Your task to perform on an android device: open chrome privacy settings Image 0: 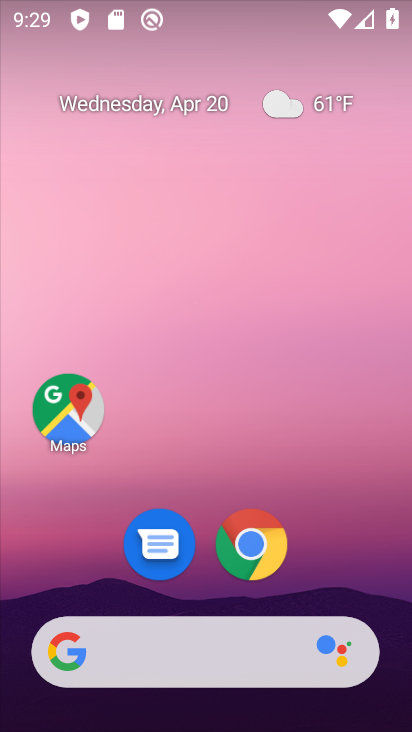
Step 0: click (255, 531)
Your task to perform on an android device: open chrome privacy settings Image 1: 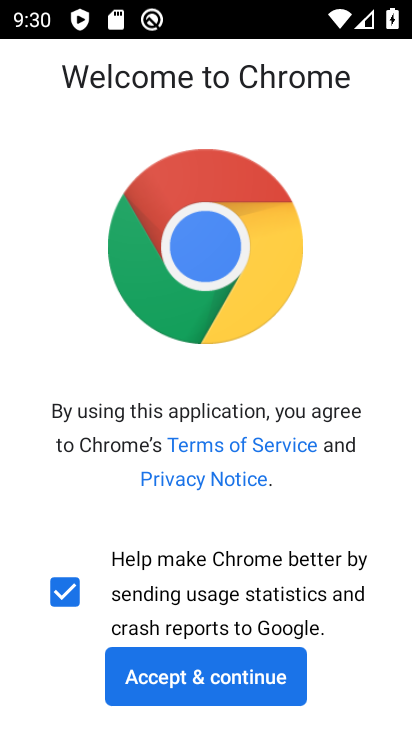
Step 1: click (220, 664)
Your task to perform on an android device: open chrome privacy settings Image 2: 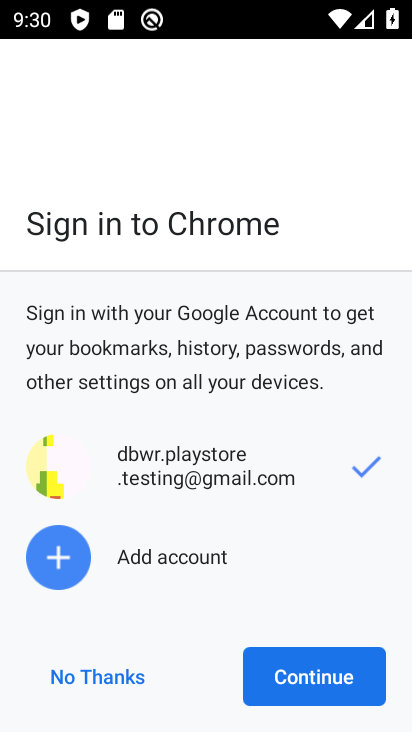
Step 2: click (291, 667)
Your task to perform on an android device: open chrome privacy settings Image 3: 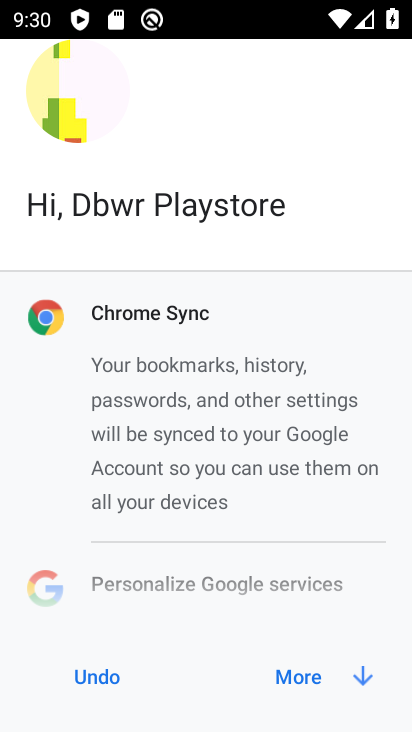
Step 3: click (326, 683)
Your task to perform on an android device: open chrome privacy settings Image 4: 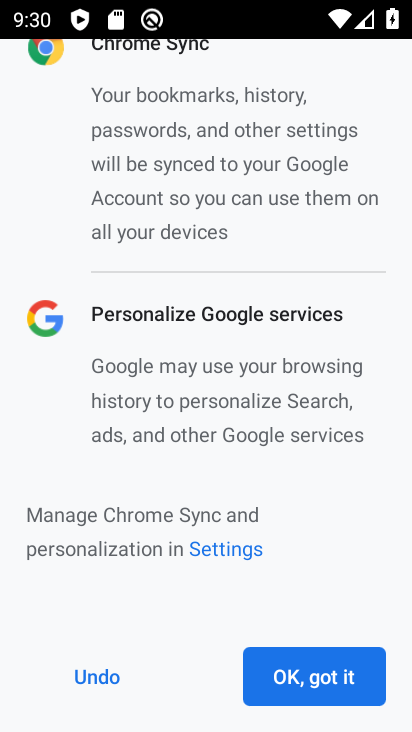
Step 4: click (325, 681)
Your task to perform on an android device: open chrome privacy settings Image 5: 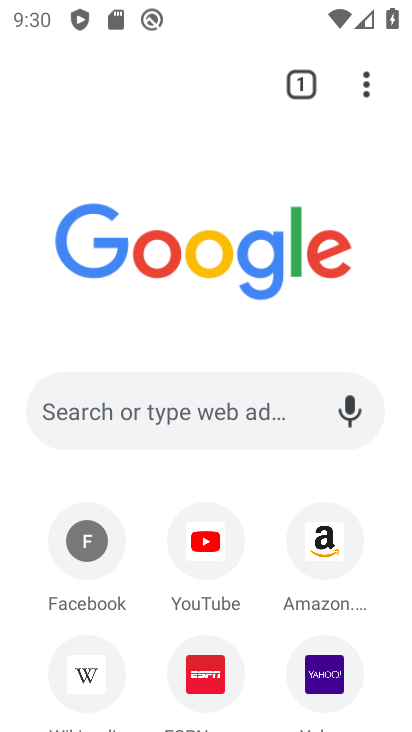
Step 5: click (373, 89)
Your task to perform on an android device: open chrome privacy settings Image 6: 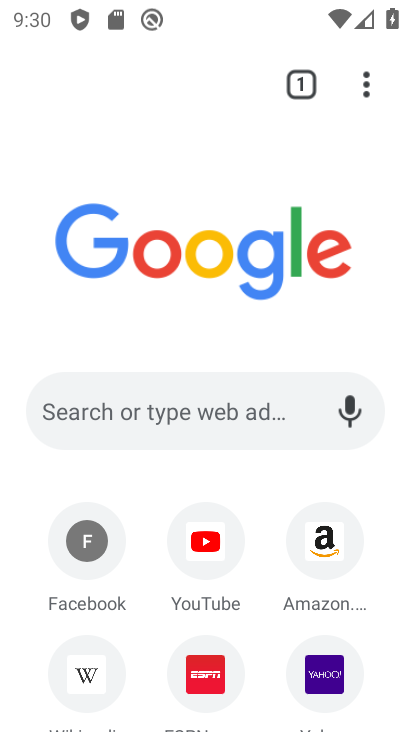
Step 6: click (368, 96)
Your task to perform on an android device: open chrome privacy settings Image 7: 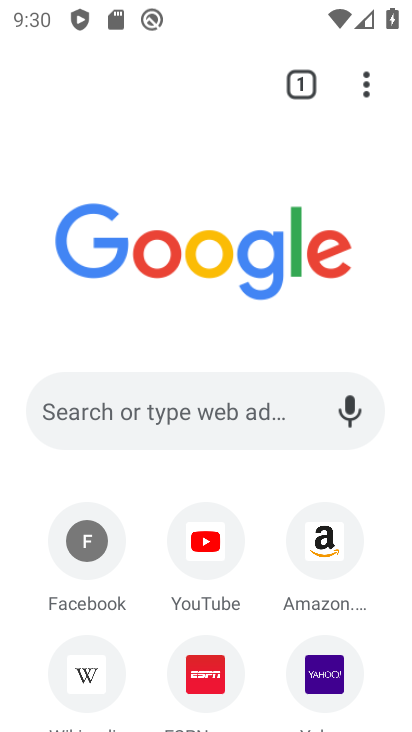
Step 7: click (368, 96)
Your task to perform on an android device: open chrome privacy settings Image 8: 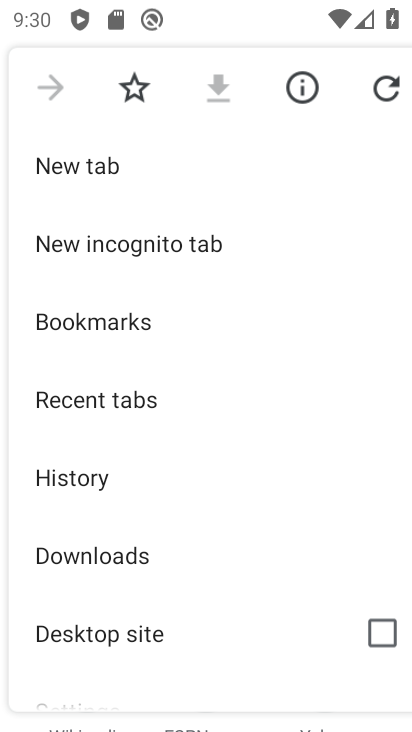
Step 8: drag from (147, 588) to (115, 199)
Your task to perform on an android device: open chrome privacy settings Image 9: 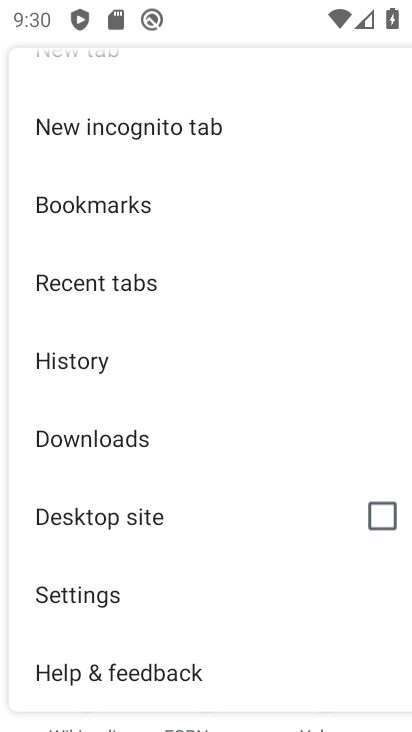
Step 9: drag from (162, 638) to (170, 228)
Your task to perform on an android device: open chrome privacy settings Image 10: 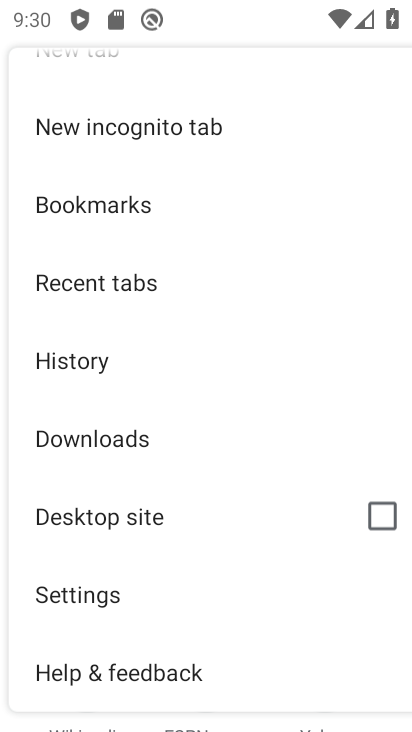
Step 10: click (87, 609)
Your task to perform on an android device: open chrome privacy settings Image 11: 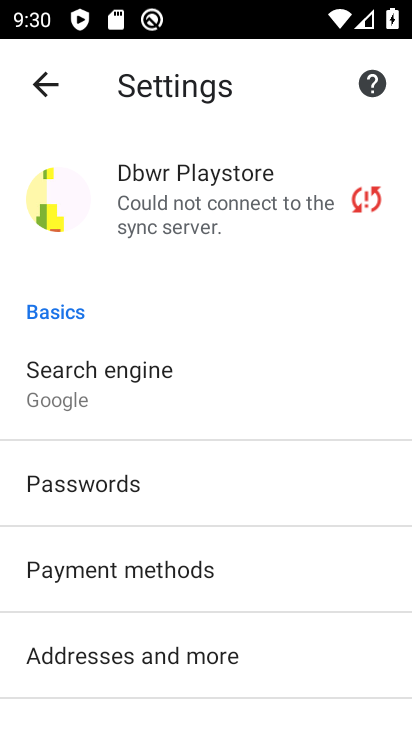
Step 11: drag from (280, 627) to (245, 337)
Your task to perform on an android device: open chrome privacy settings Image 12: 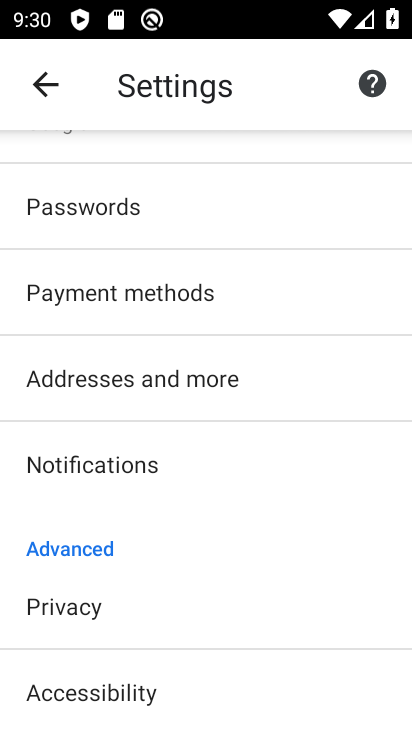
Step 12: click (101, 611)
Your task to perform on an android device: open chrome privacy settings Image 13: 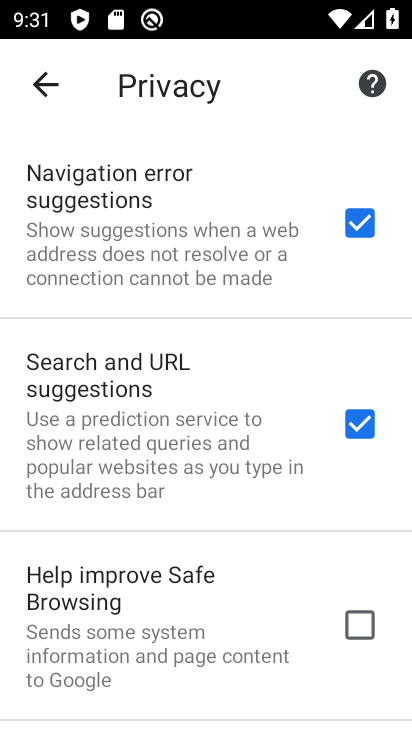
Step 13: task complete